Your task to perform on an android device: Open calendar and show me the fourth week of next month Image 0: 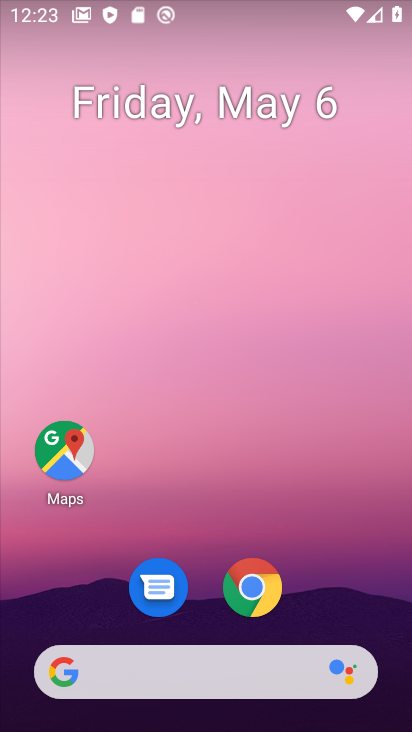
Step 0: drag from (101, 632) to (204, 176)
Your task to perform on an android device: Open calendar and show me the fourth week of next month Image 1: 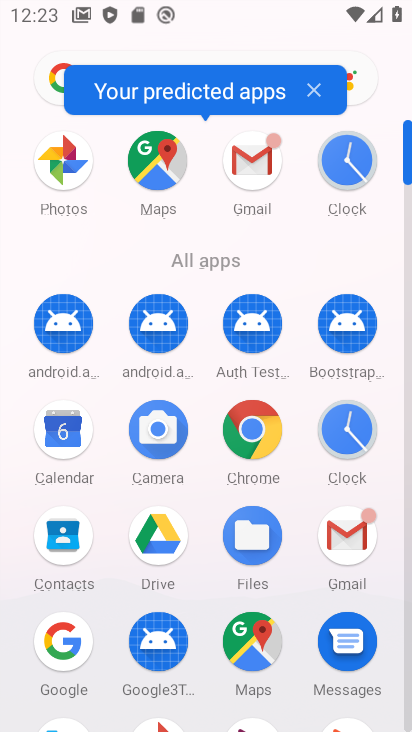
Step 1: click (67, 443)
Your task to perform on an android device: Open calendar and show me the fourth week of next month Image 2: 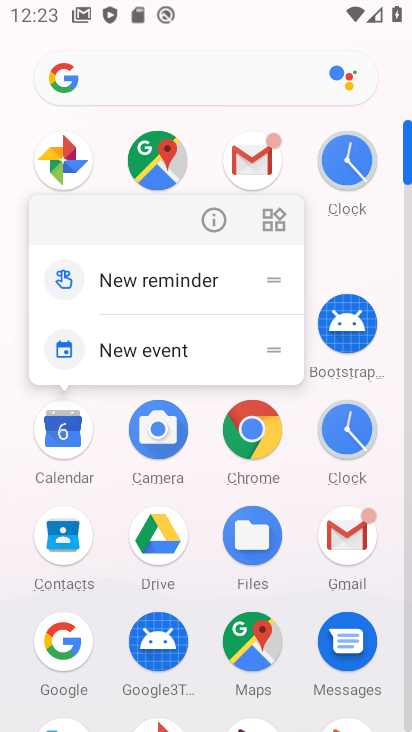
Step 2: click (67, 443)
Your task to perform on an android device: Open calendar and show me the fourth week of next month Image 3: 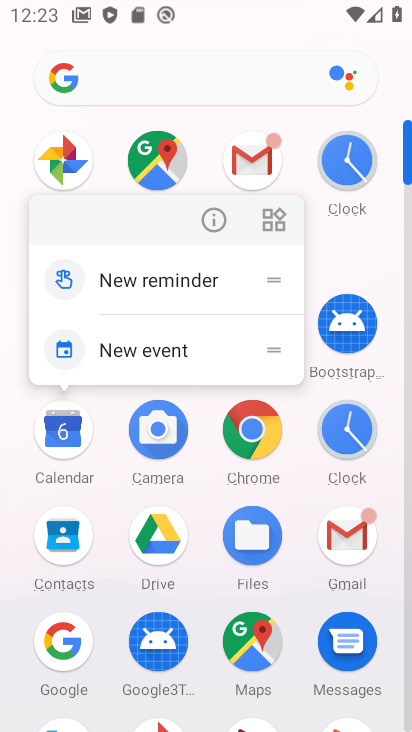
Step 3: click (62, 436)
Your task to perform on an android device: Open calendar and show me the fourth week of next month Image 4: 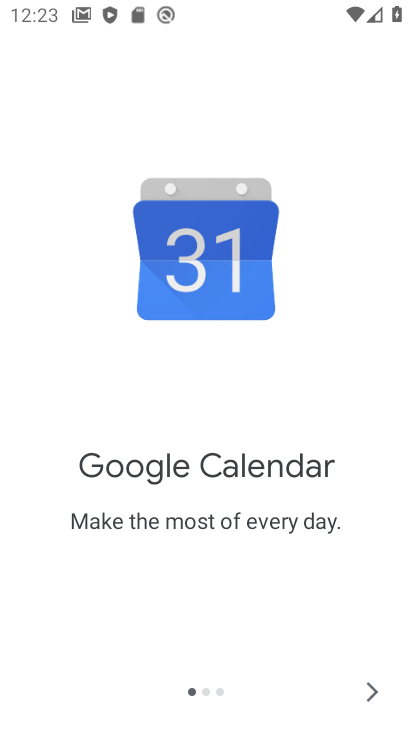
Step 4: click (375, 695)
Your task to perform on an android device: Open calendar and show me the fourth week of next month Image 5: 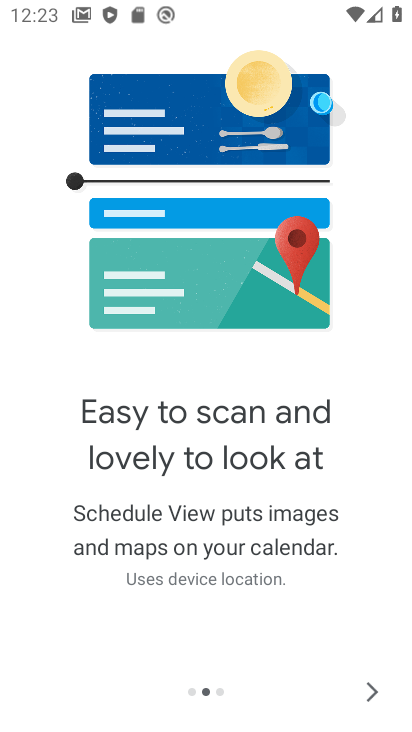
Step 5: click (399, 693)
Your task to perform on an android device: Open calendar and show me the fourth week of next month Image 6: 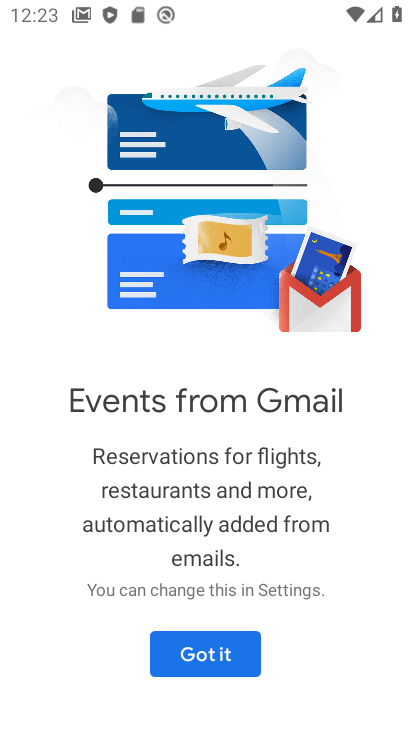
Step 6: click (232, 662)
Your task to perform on an android device: Open calendar and show me the fourth week of next month Image 7: 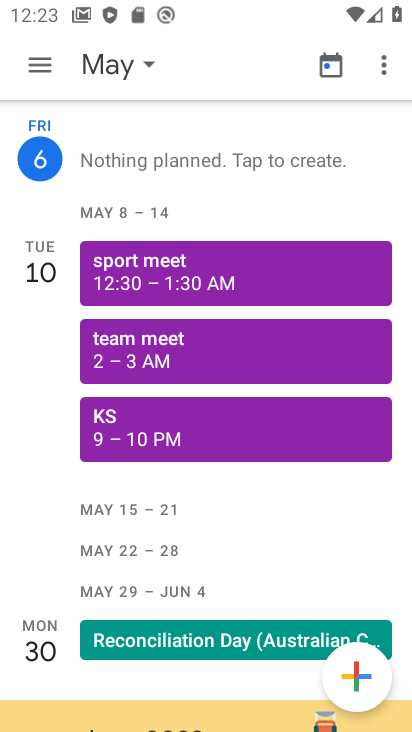
Step 7: click (94, 68)
Your task to perform on an android device: Open calendar and show me the fourth week of next month Image 8: 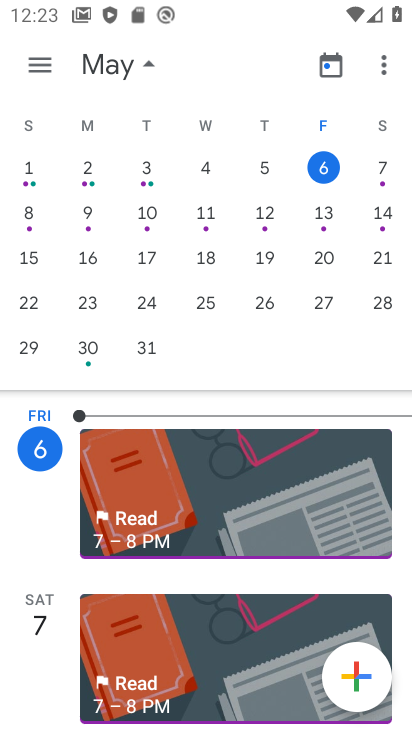
Step 8: drag from (344, 350) to (5, 293)
Your task to perform on an android device: Open calendar and show me the fourth week of next month Image 9: 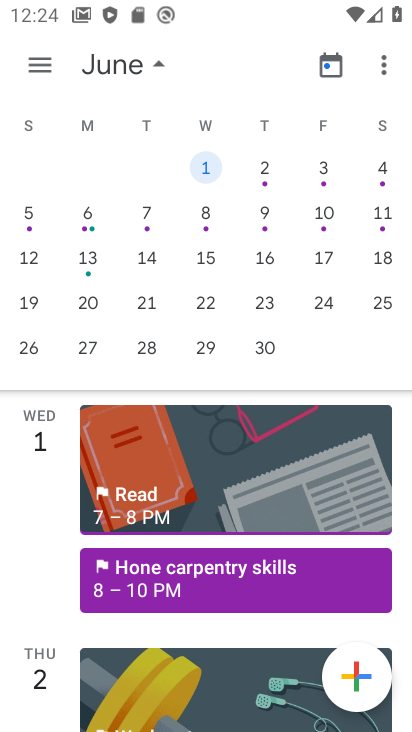
Step 9: click (30, 349)
Your task to perform on an android device: Open calendar and show me the fourth week of next month Image 10: 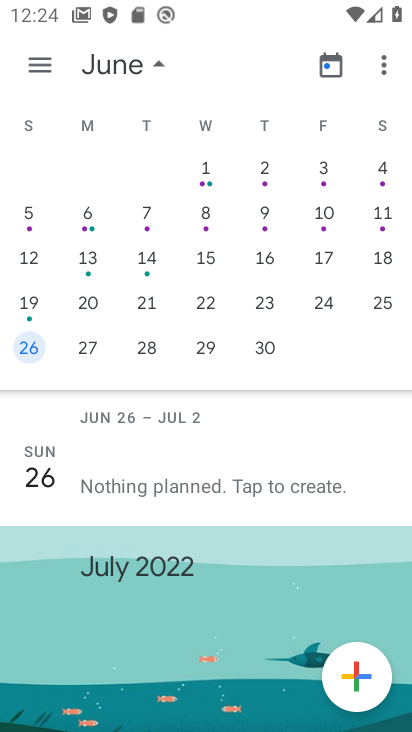
Step 10: click (52, 57)
Your task to perform on an android device: Open calendar and show me the fourth week of next month Image 11: 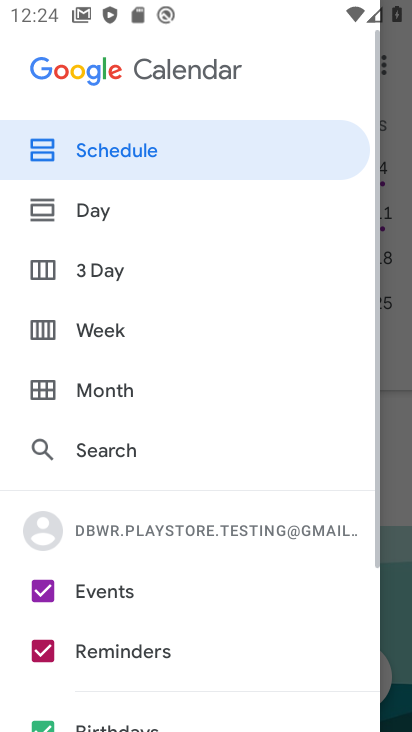
Step 11: click (115, 328)
Your task to perform on an android device: Open calendar and show me the fourth week of next month Image 12: 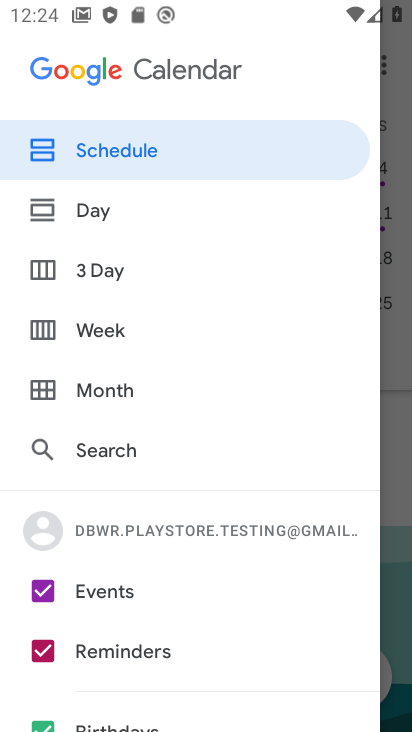
Step 12: click (134, 337)
Your task to perform on an android device: Open calendar and show me the fourth week of next month Image 13: 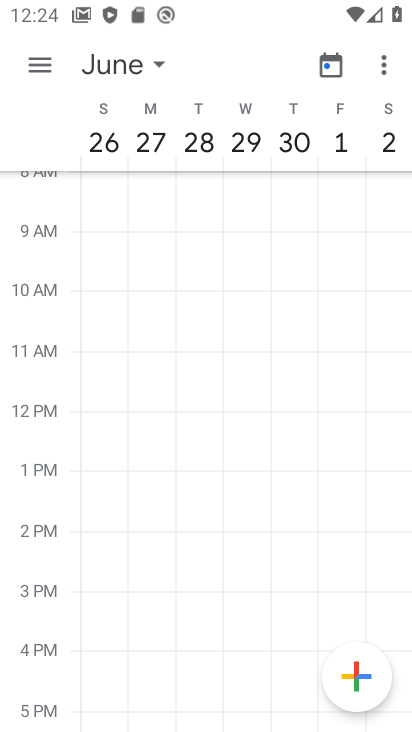
Step 13: task complete